Your task to perform on an android device: choose inbox layout in the gmail app Image 0: 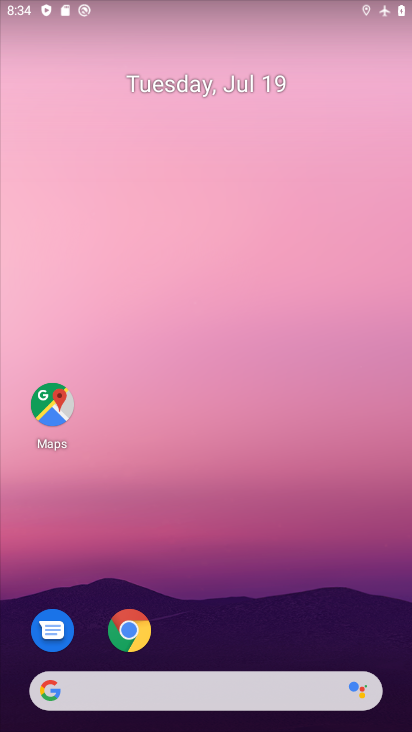
Step 0: drag from (187, 534) to (230, 106)
Your task to perform on an android device: choose inbox layout in the gmail app Image 1: 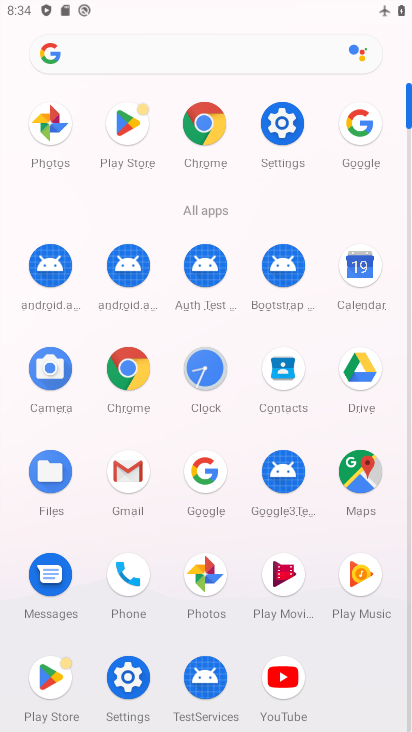
Step 1: click (127, 470)
Your task to perform on an android device: choose inbox layout in the gmail app Image 2: 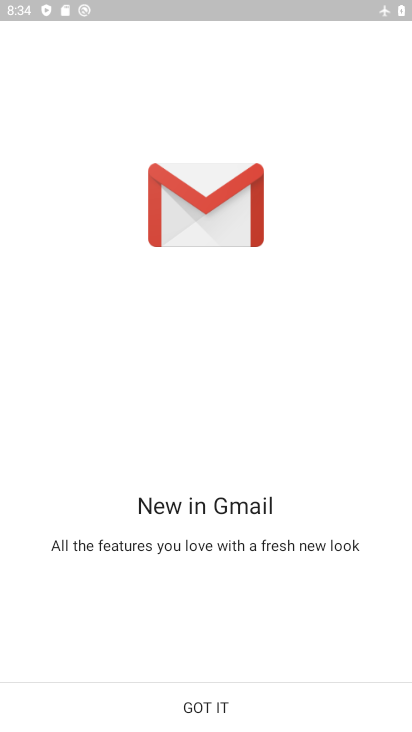
Step 2: click (222, 699)
Your task to perform on an android device: choose inbox layout in the gmail app Image 3: 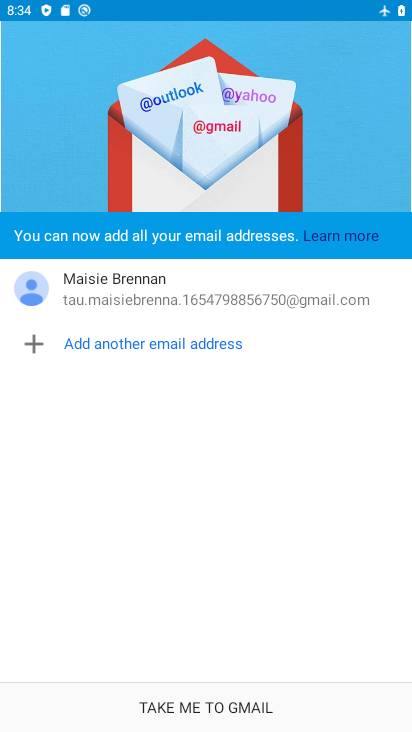
Step 3: click (222, 699)
Your task to perform on an android device: choose inbox layout in the gmail app Image 4: 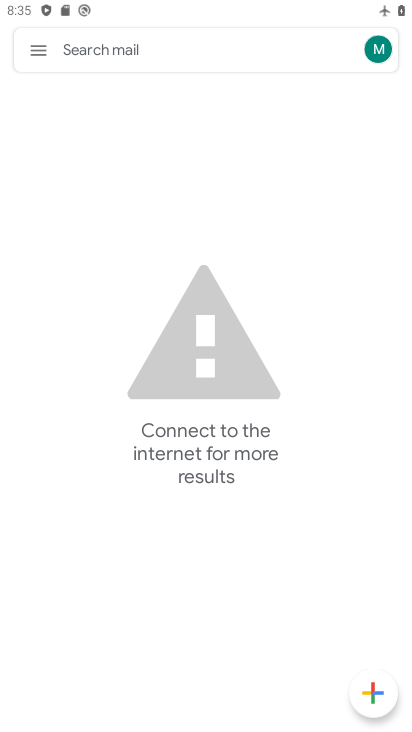
Step 4: task complete